Your task to perform on an android device: uninstall "Truecaller" Image 0: 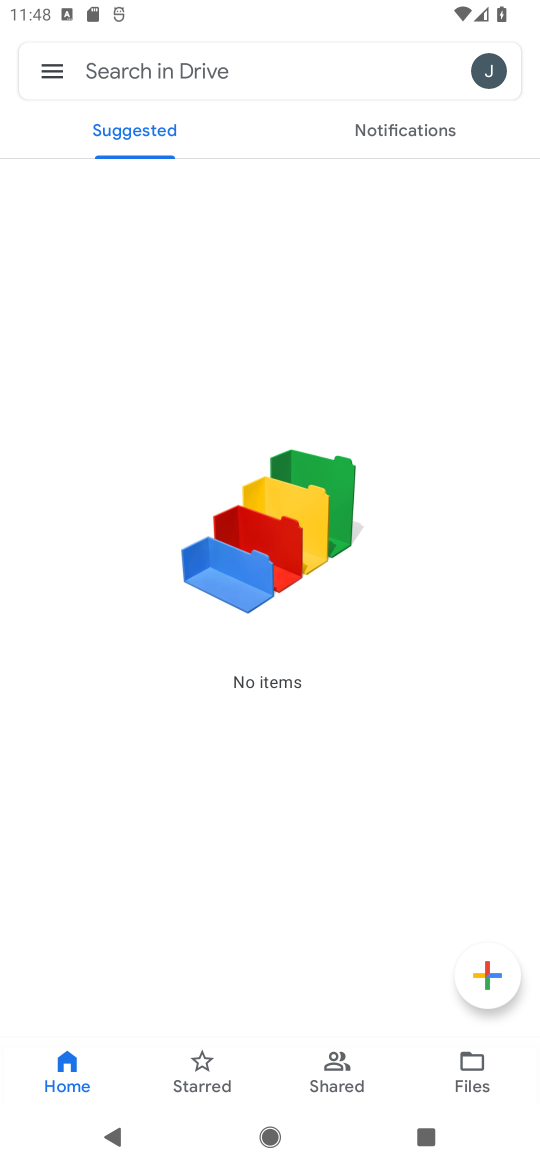
Step 0: press home button
Your task to perform on an android device: uninstall "Truecaller" Image 1: 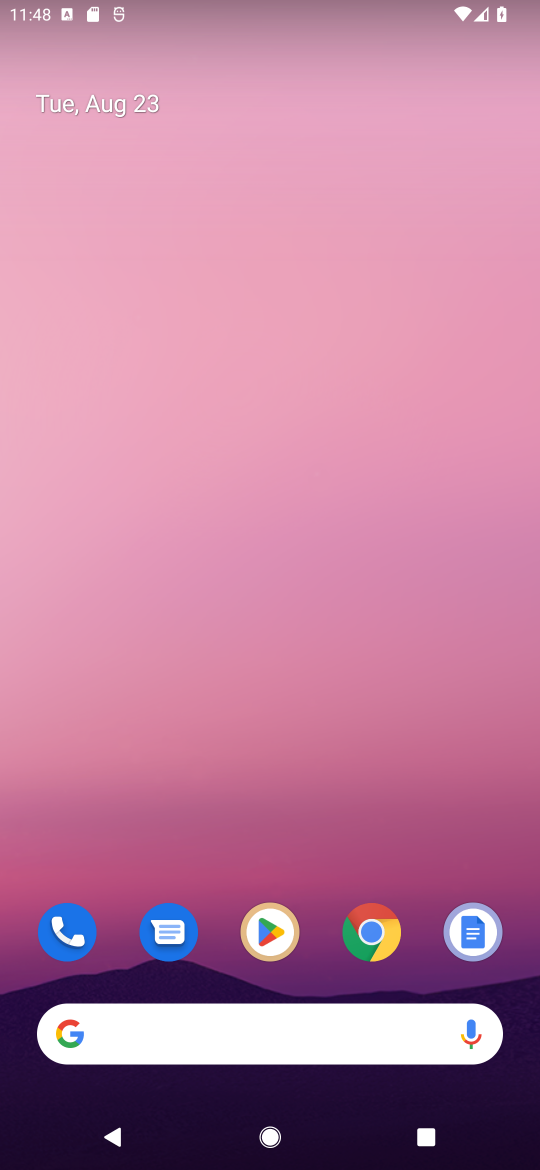
Step 1: click (264, 929)
Your task to perform on an android device: uninstall "Truecaller" Image 2: 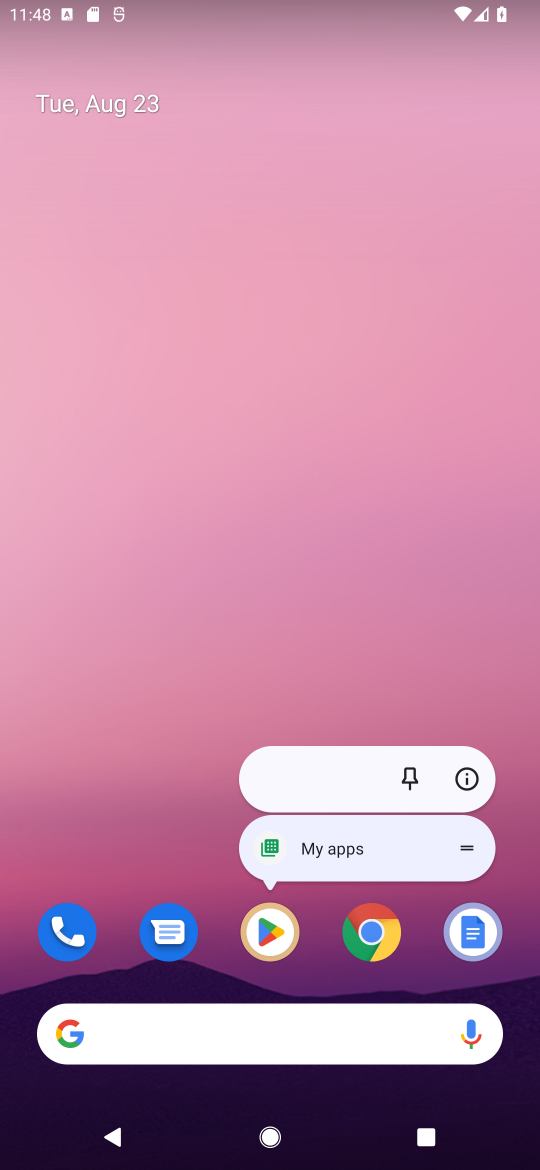
Step 2: click (269, 916)
Your task to perform on an android device: uninstall "Truecaller" Image 3: 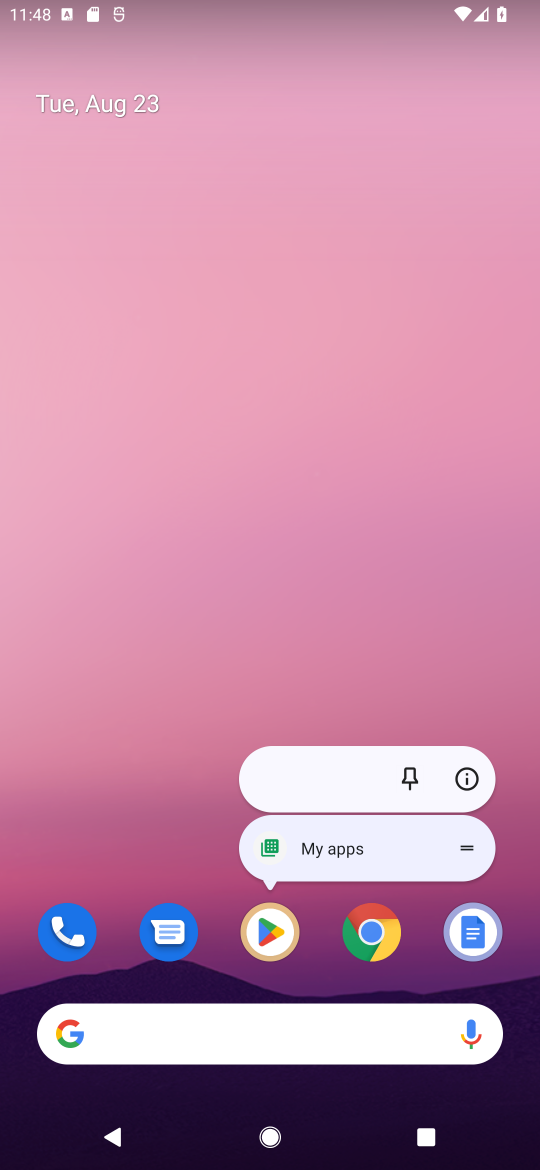
Step 3: click (276, 943)
Your task to perform on an android device: uninstall "Truecaller" Image 4: 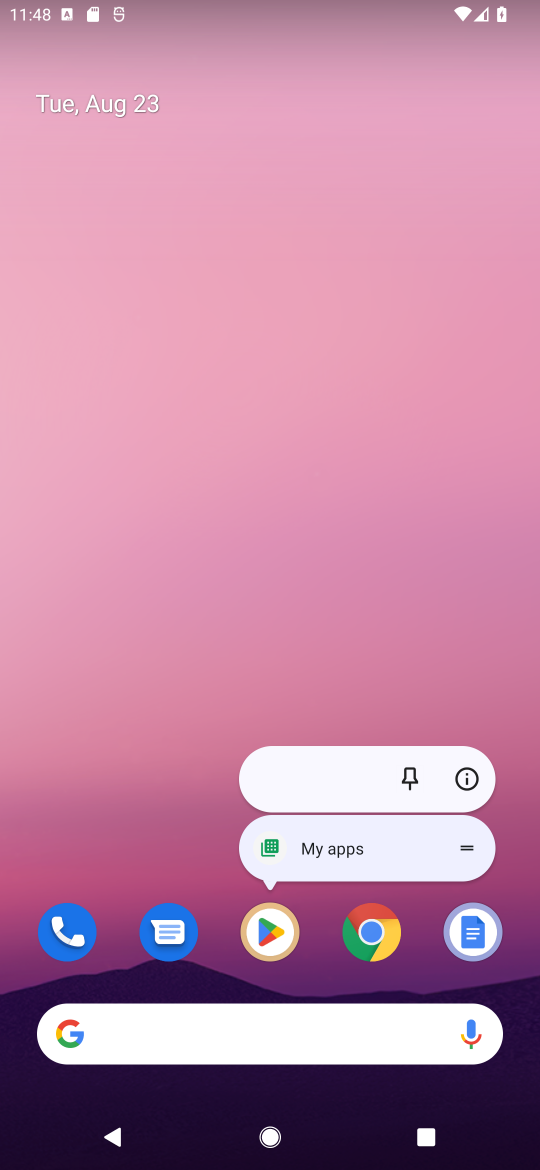
Step 4: click (265, 938)
Your task to perform on an android device: uninstall "Truecaller" Image 5: 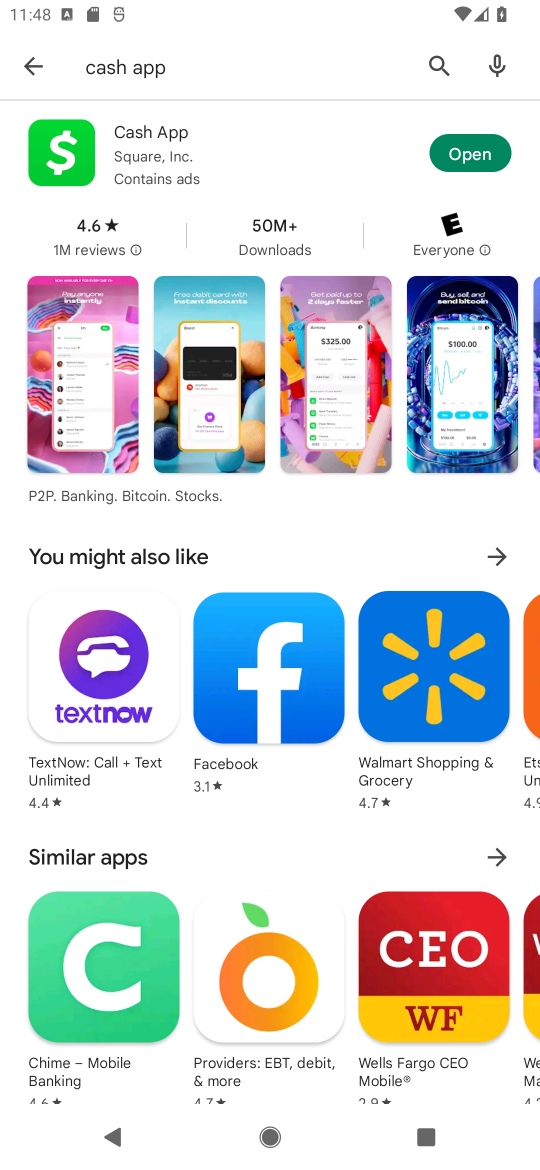
Step 5: click (440, 65)
Your task to perform on an android device: uninstall "Truecaller" Image 6: 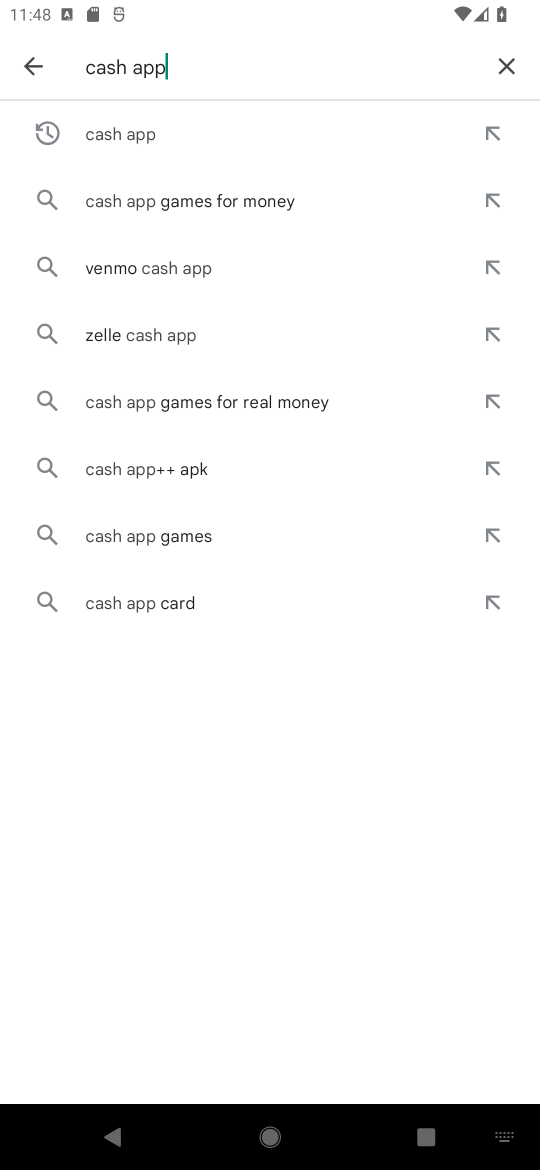
Step 6: click (502, 61)
Your task to perform on an android device: uninstall "Truecaller" Image 7: 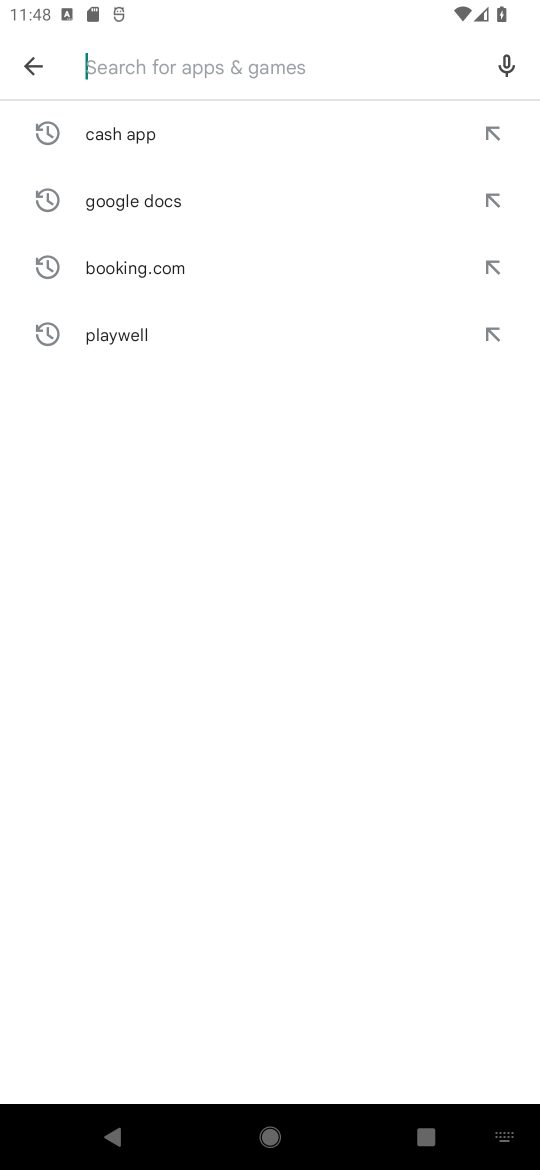
Step 7: click (168, 67)
Your task to perform on an android device: uninstall "Truecaller" Image 8: 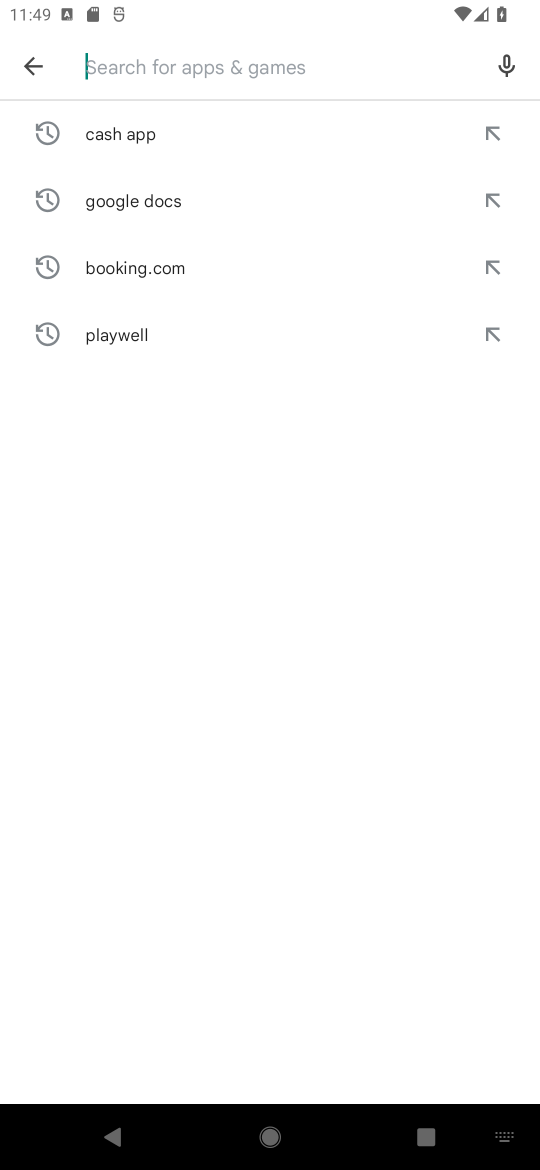
Step 8: type "Truecaller"
Your task to perform on an android device: uninstall "Truecaller" Image 9: 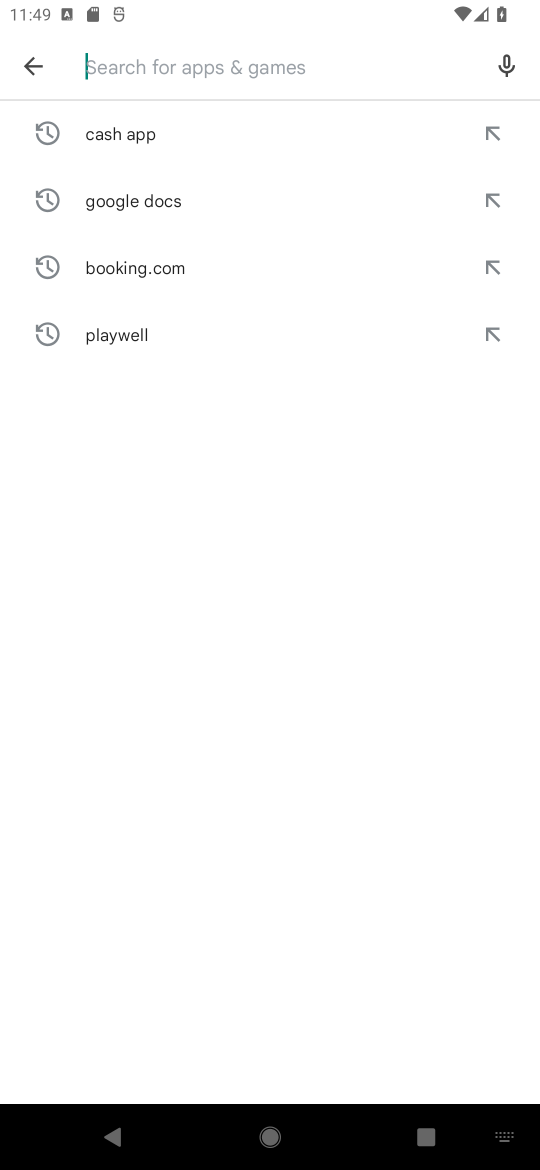
Step 9: click (332, 712)
Your task to perform on an android device: uninstall "Truecaller" Image 10: 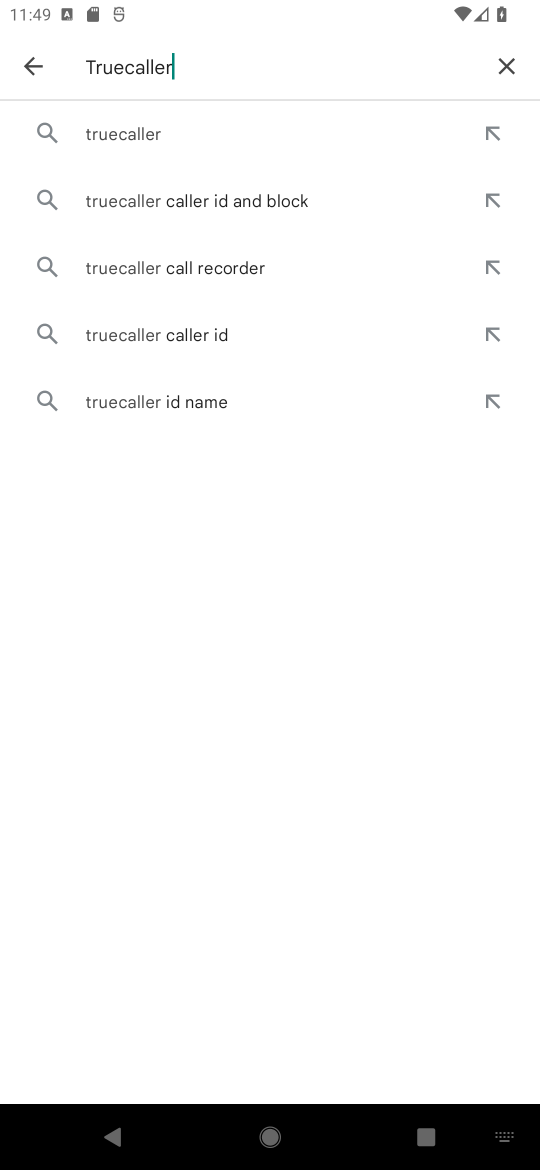
Step 10: click (146, 135)
Your task to perform on an android device: uninstall "Truecaller" Image 11: 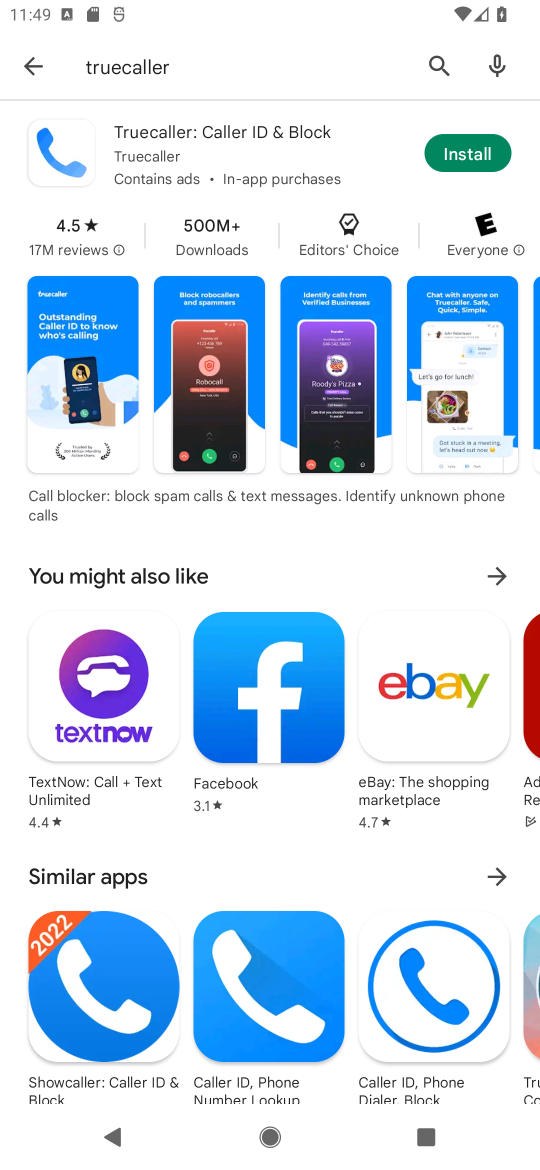
Step 11: click (209, 154)
Your task to perform on an android device: uninstall "Truecaller" Image 12: 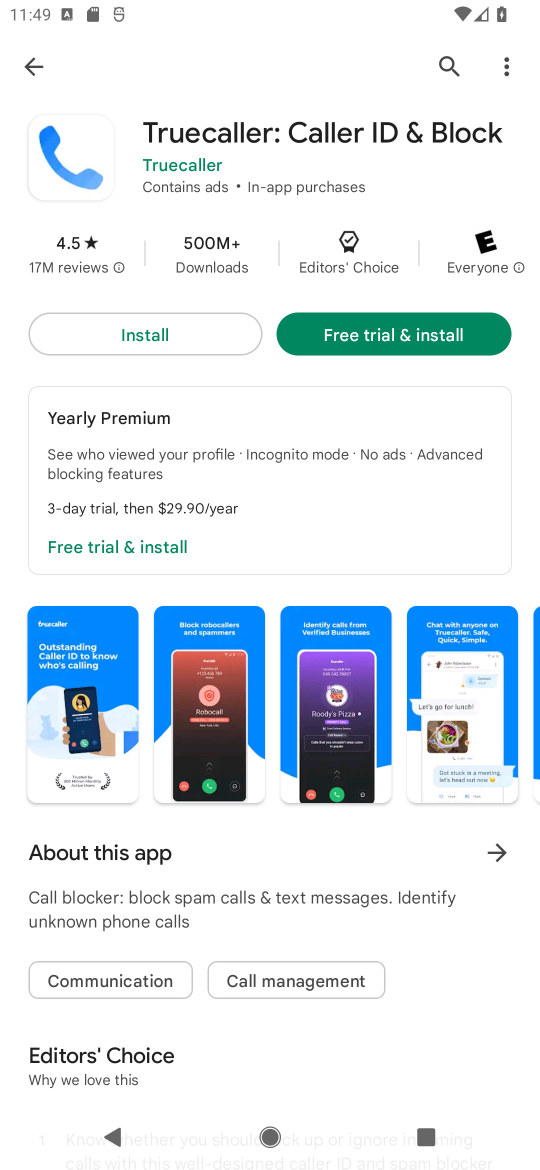
Step 12: task complete